Your task to perform on an android device: turn on location history Image 0: 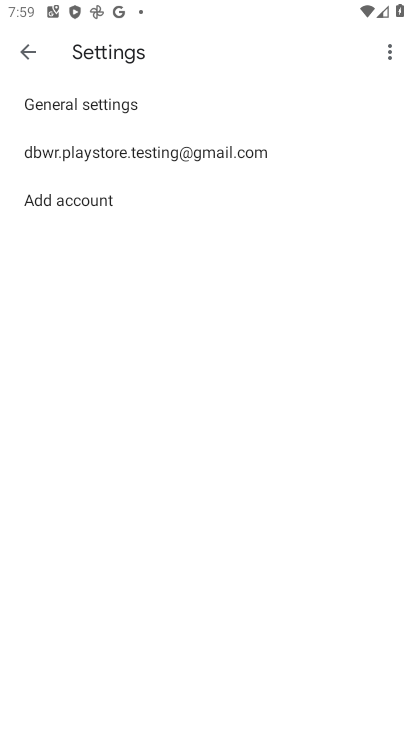
Step 0: press home button
Your task to perform on an android device: turn on location history Image 1: 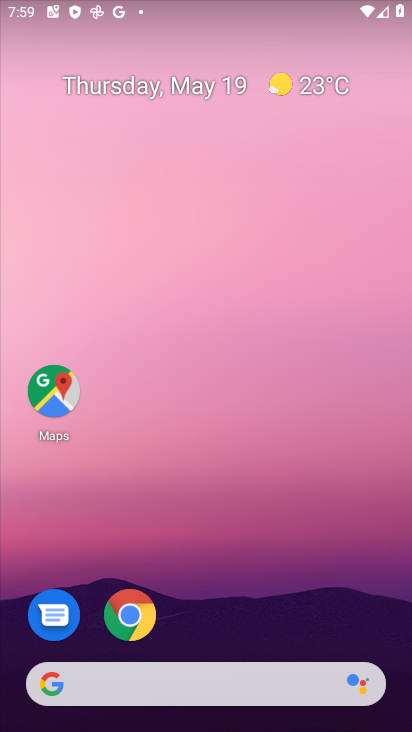
Step 1: drag from (321, 622) to (276, 14)
Your task to perform on an android device: turn on location history Image 2: 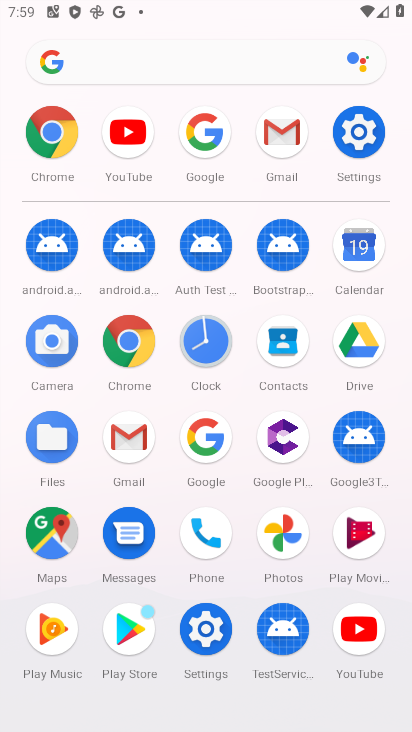
Step 2: click (195, 624)
Your task to perform on an android device: turn on location history Image 3: 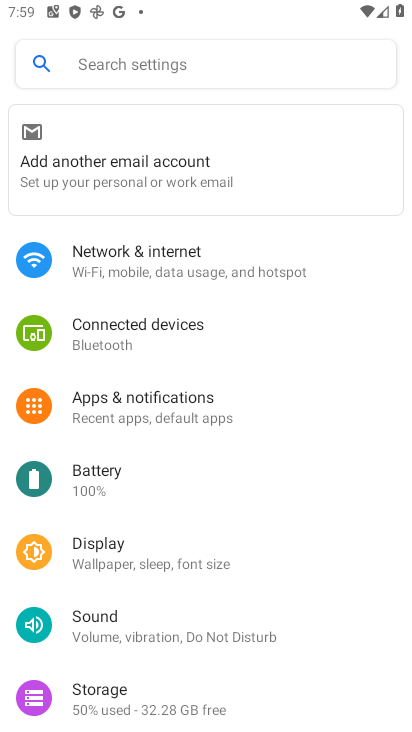
Step 3: drag from (179, 635) to (186, 179)
Your task to perform on an android device: turn on location history Image 4: 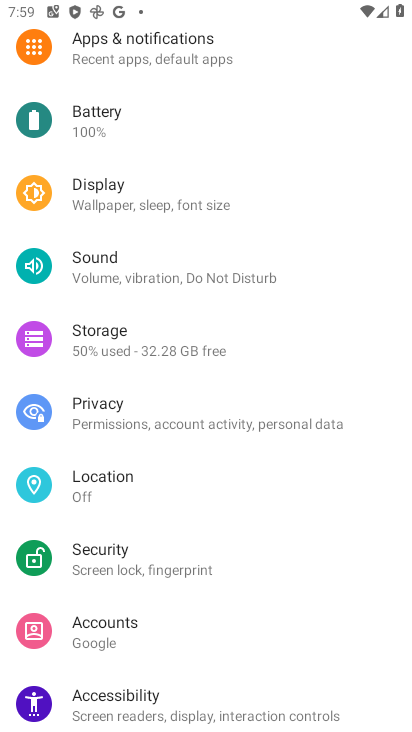
Step 4: click (132, 496)
Your task to perform on an android device: turn on location history Image 5: 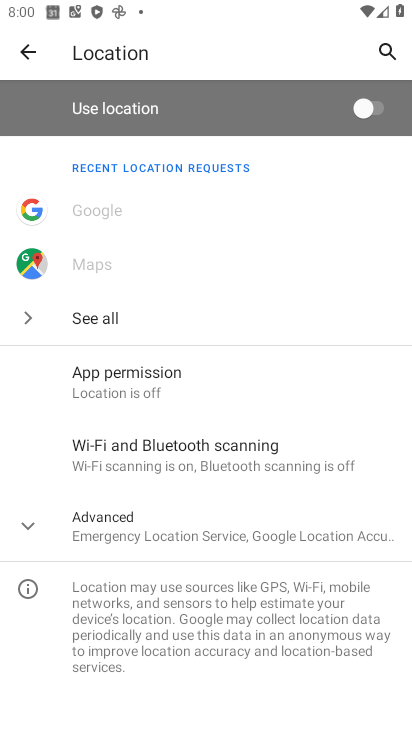
Step 5: click (154, 520)
Your task to perform on an android device: turn on location history Image 6: 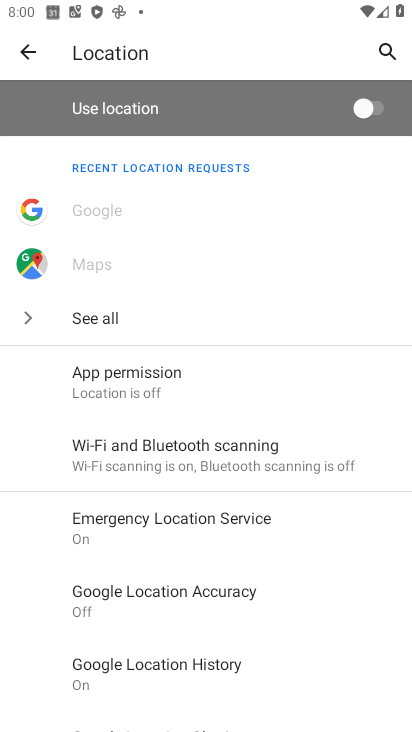
Step 6: click (164, 663)
Your task to perform on an android device: turn on location history Image 7: 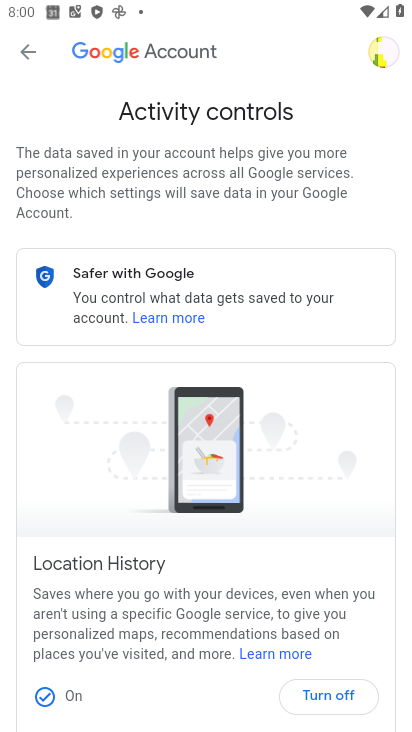
Step 7: click (316, 688)
Your task to perform on an android device: turn on location history Image 8: 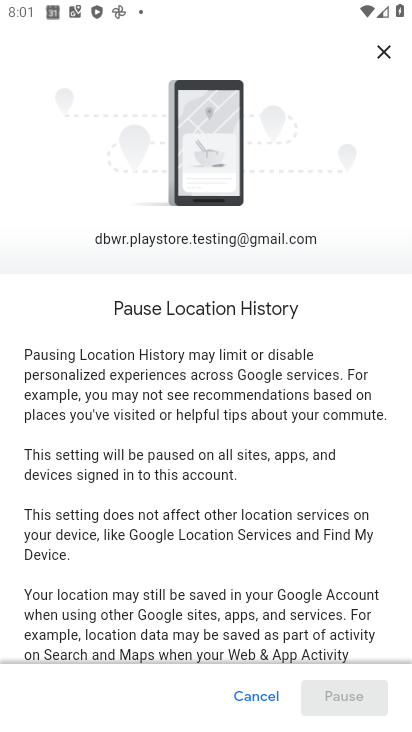
Step 8: task complete